Your task to perform on an android device: turn on airplane mode Image 0: 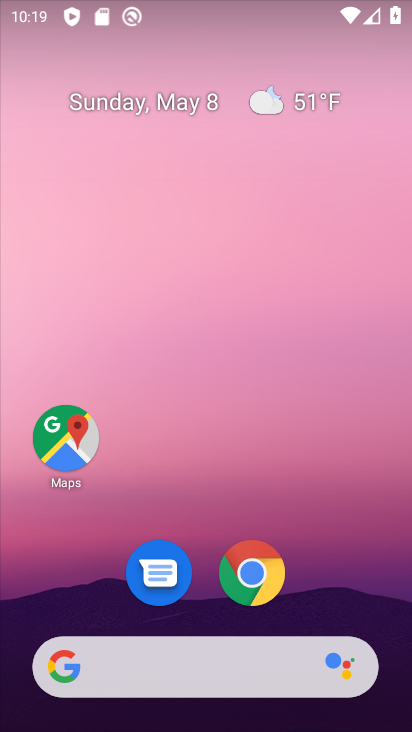
Step 0: drag from (161, 590) to (161, 79)
Your task to perform on an android device: turn on airplane mode Image 1: 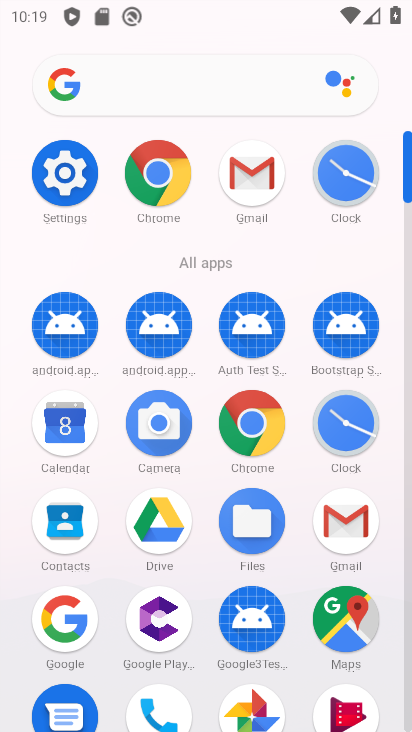
Step 1: click (53, 177)
Your task to perform on an android device: turn on airplane mode Image 2: 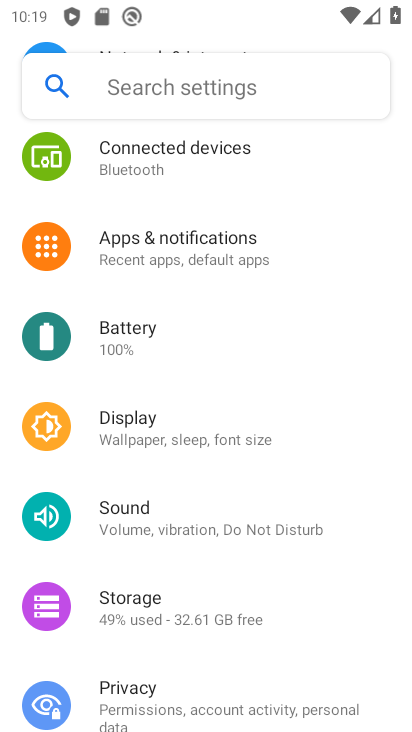
Step 2: drag from (162, 132) to (216, 485)
Your task to perform on an android device: turn on airplane mode Image 3: 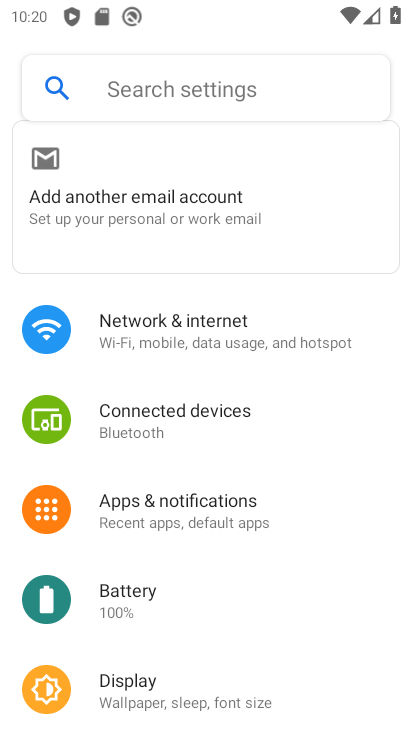
Step 3: click (182, 339)
Your task to perform on an android device: turn on airplane mode Image 4: 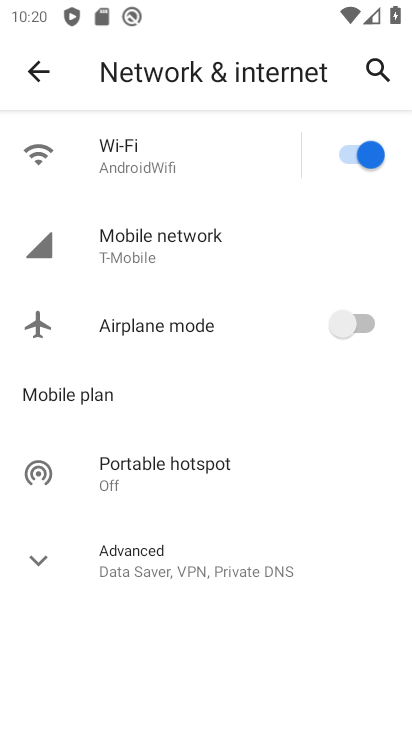
Step 4: click (356, 323)
Your task to perform on an android device: turn on airplane mode Image 5: 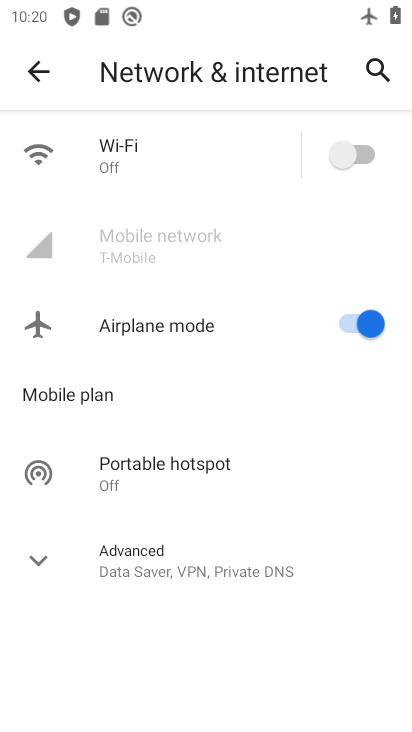
Step 5: task complete